Your task to perform on an android device: Go to sound settings Image 0: 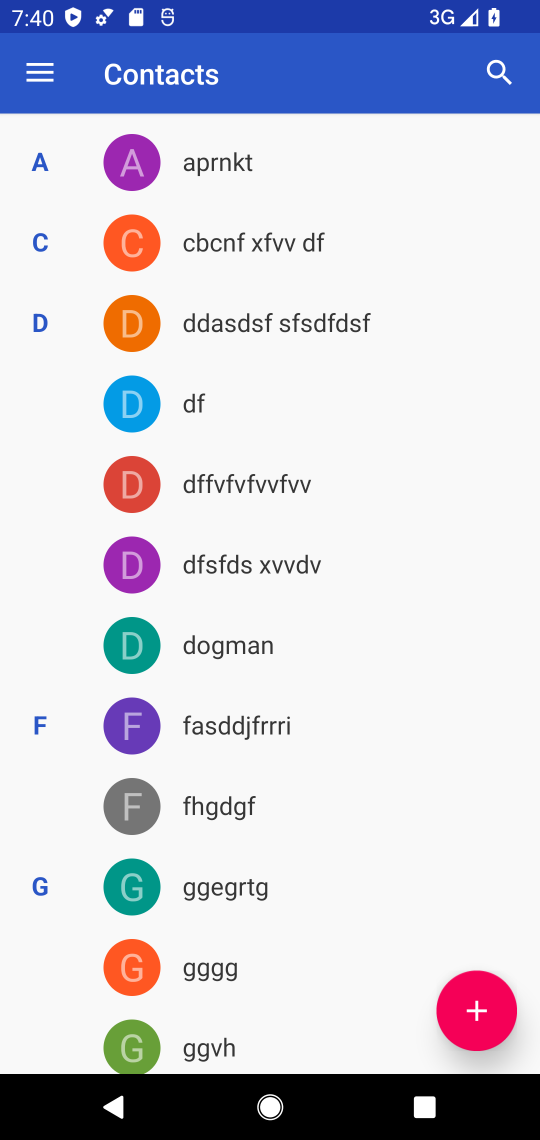
Step 0: press home button
Your task to perform on an android device: Go to sound settings Image 1: 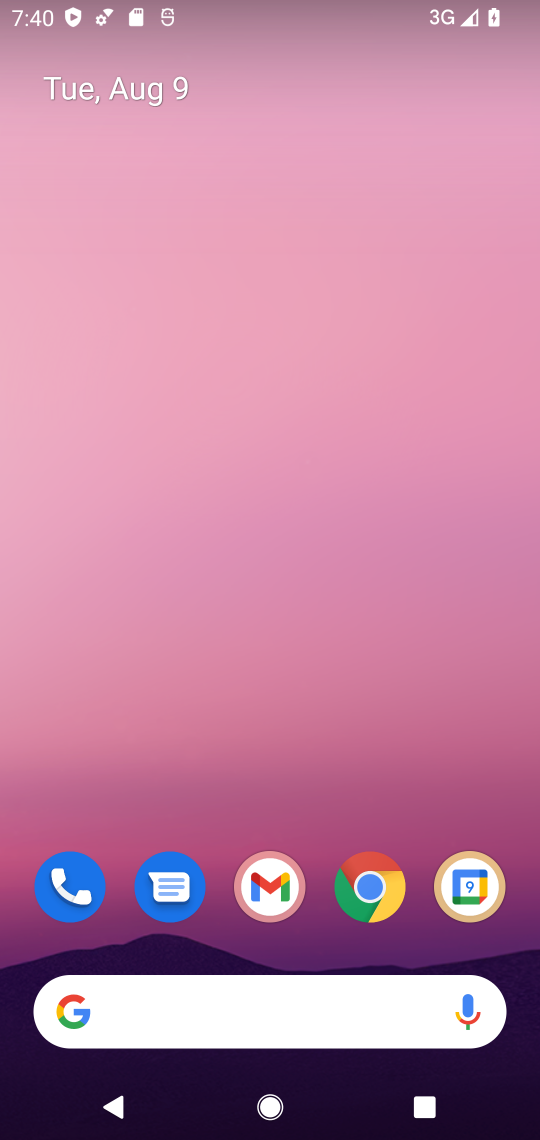
Step 1: drag from (283, 754) to (314, 0)
Your task to perform on an android device: Go to sound settings Image 2: 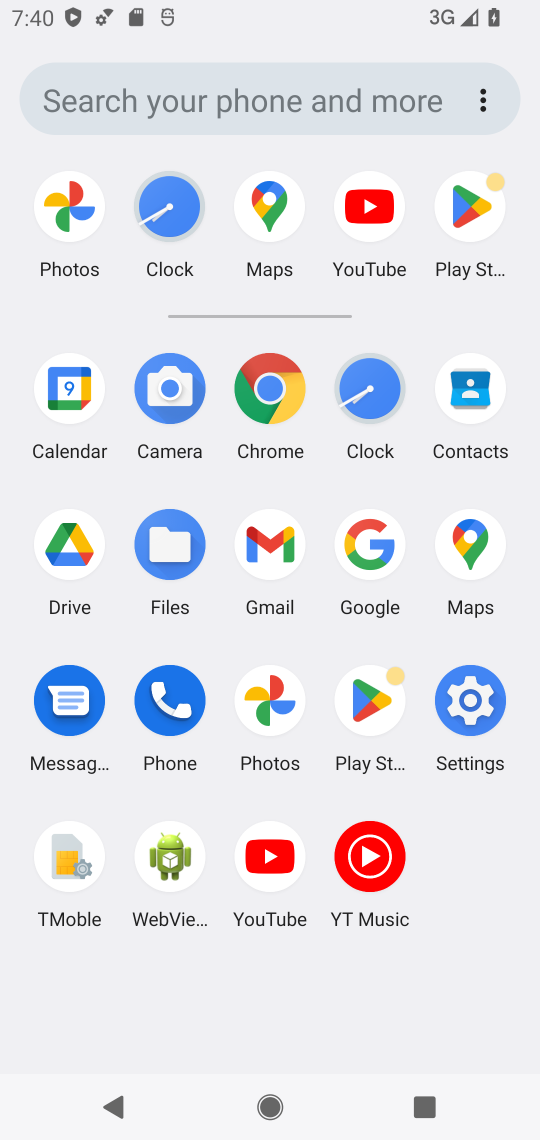
Step 2: click (475, 703)
Your task to perform on an android device: Go to sound settings Image 3: 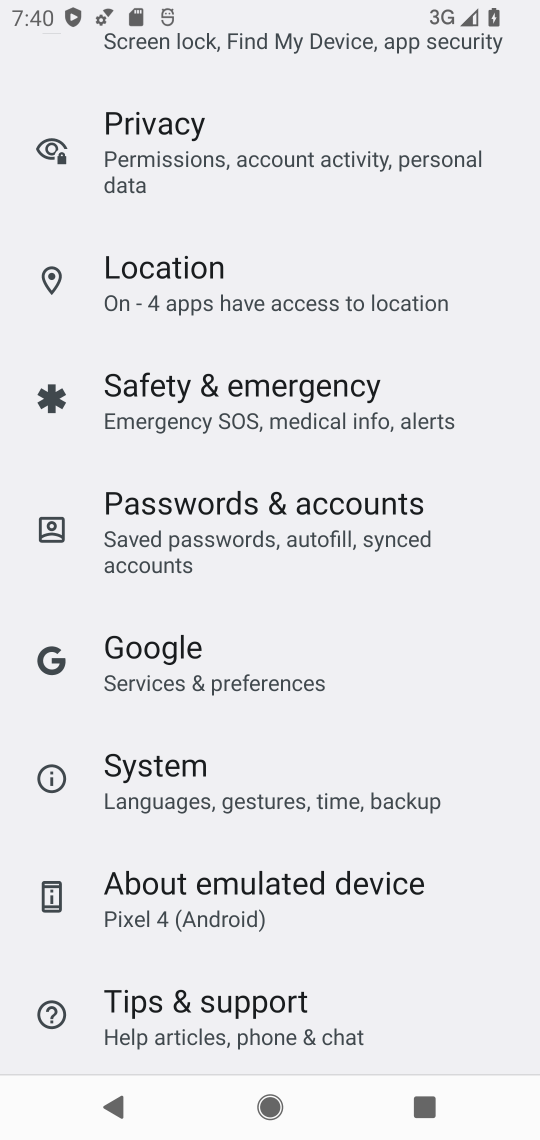
Step 3: drag from (287, 941) to (273, 337)
Your task to perform on an android device: Go to sound settings Image 4: 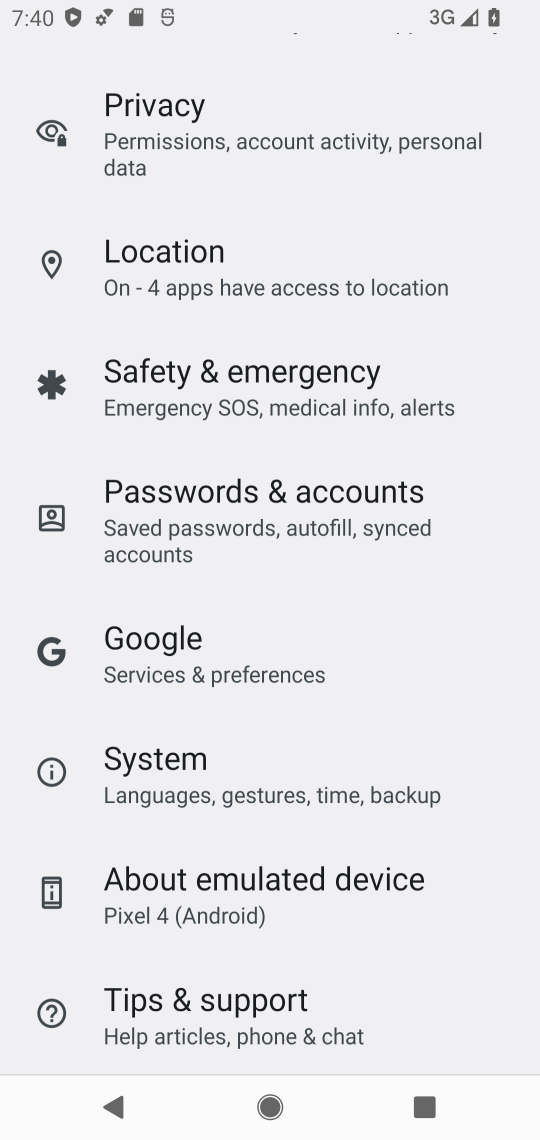
Step 4: drag from (261, 199) to (303, 1020)
Your task to perform on an android device: Go to sound settings Image 5: 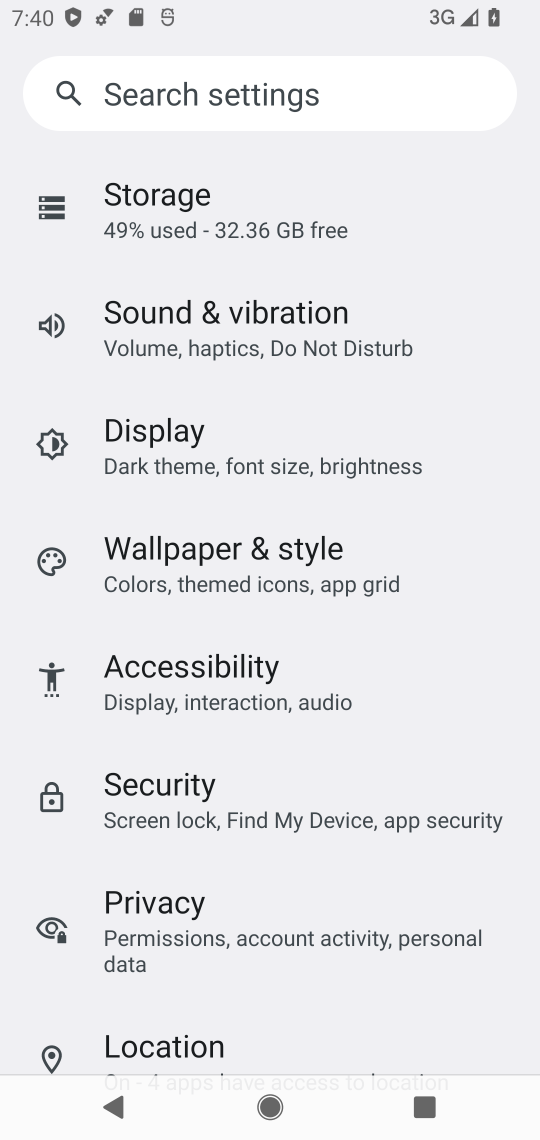
Step 5: click (266, 323)
Your task to perform on an android device: Go to sound settings Image 6: 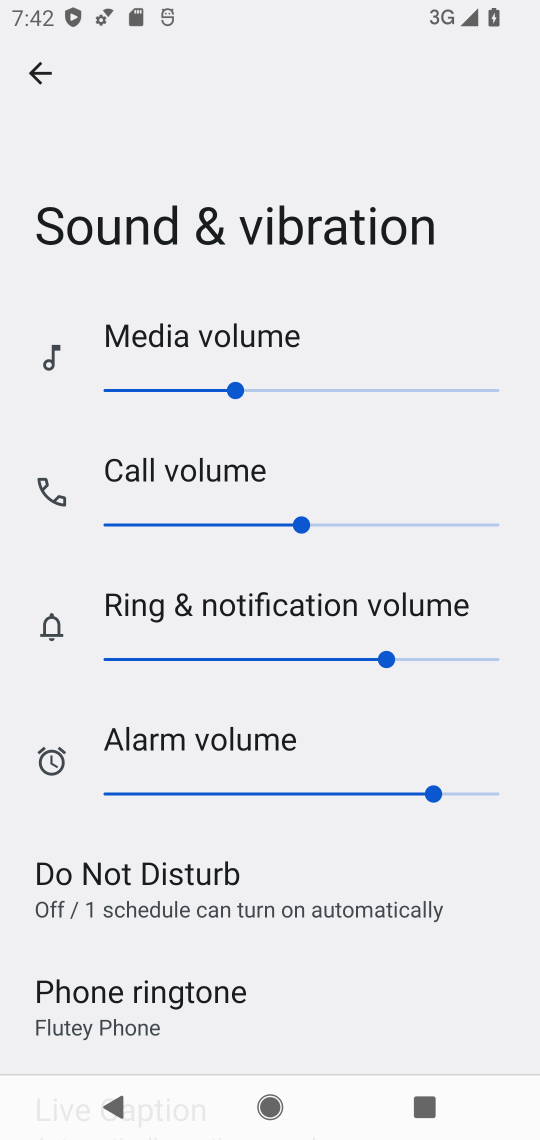
Step 6: task complete